Your task to perform on an android device: toggle wifi Image 0: 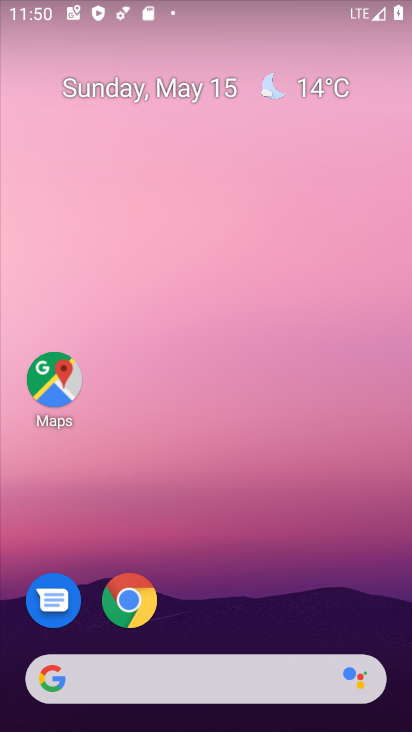
Step 0: drag from (403, 645) to (307, 96)
Your task to perform on an android device: toggle wifi Image 1: 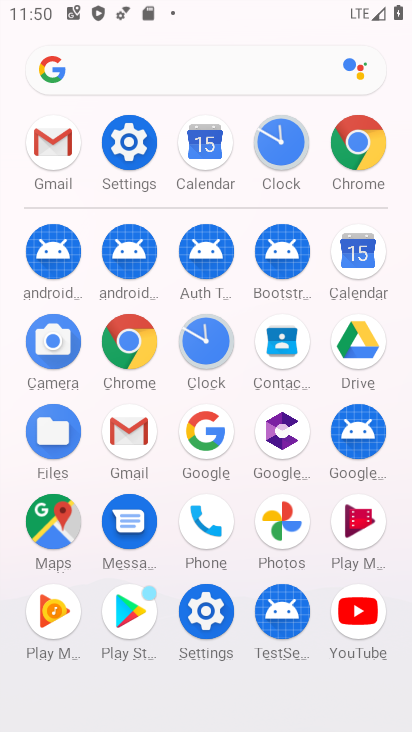
Step 1: click (208, 612)
Your task to perform on an android device: toggle wifi Image 2: 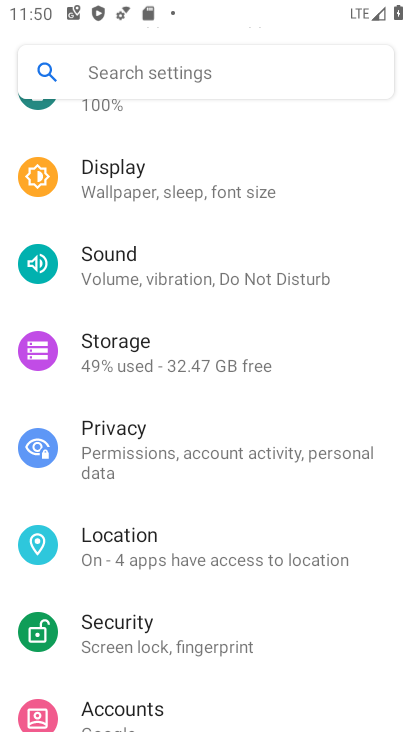
Step 2: drag from (378, 147) to (382, 469)
Your task to perform on an android device: toggle wifi Image 3: 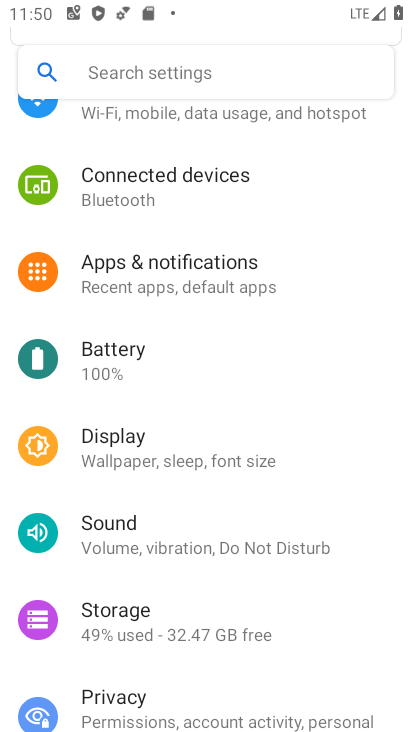
Step 3: drag from (319, 192) to (313, 527)
Your task to perform on an android device: toggle wifi Image 4: 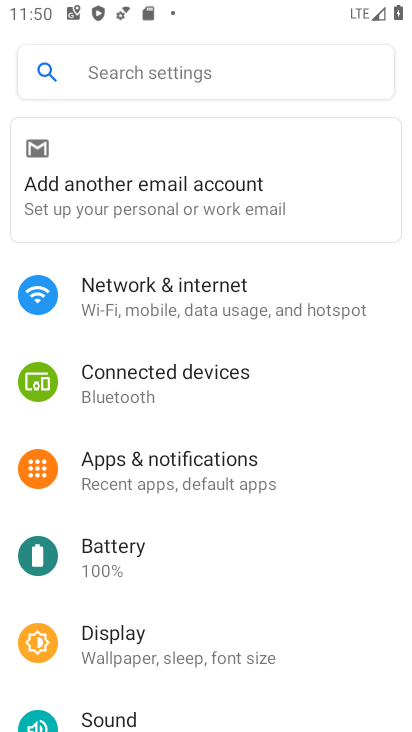
Step 4: click (144, 286)
Your task to perform on an android device: toggle wifi Image 5: 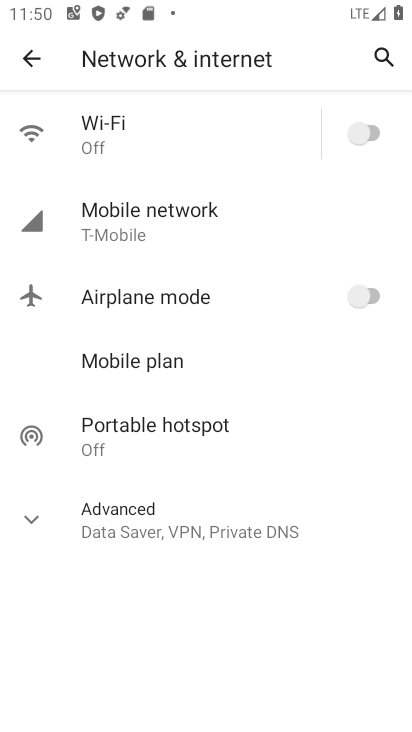
Step 5: click (372, 135)
Your task to perform on an android device: toggle wifi Image 6: 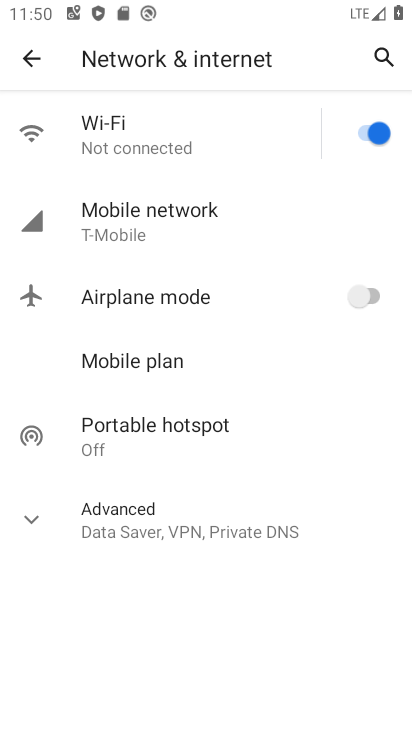
Step 6: task complete